Your task to perform on an android device: Open Wikipedia Image 0: 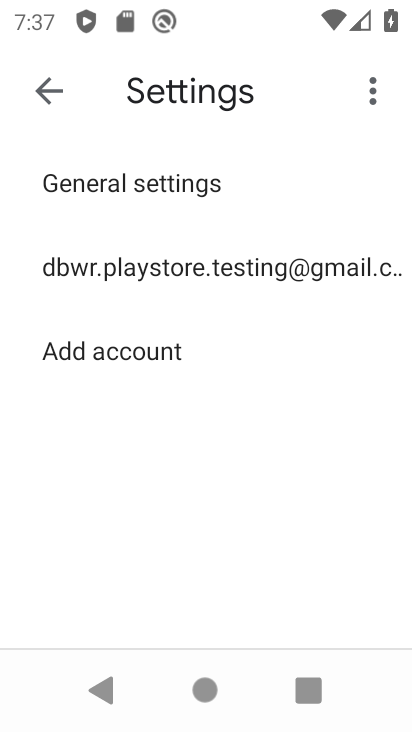
Step 0: press home button
Your task to perform on an android device: Open Wikipedia Image 1: 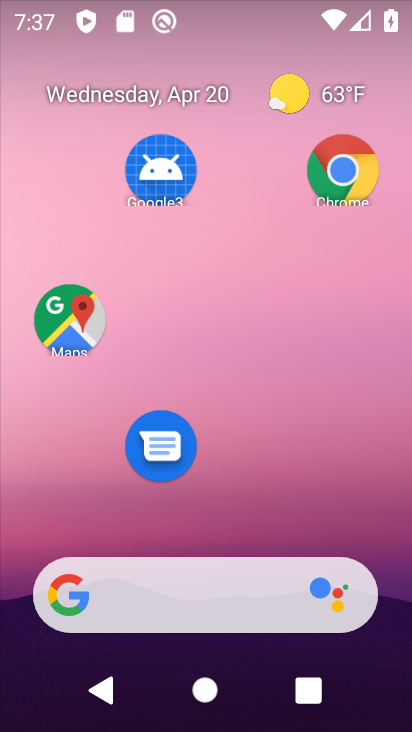
Step 1: click (349, 164)
Your task to perform on an android device: Open Wikipedia Image 2: 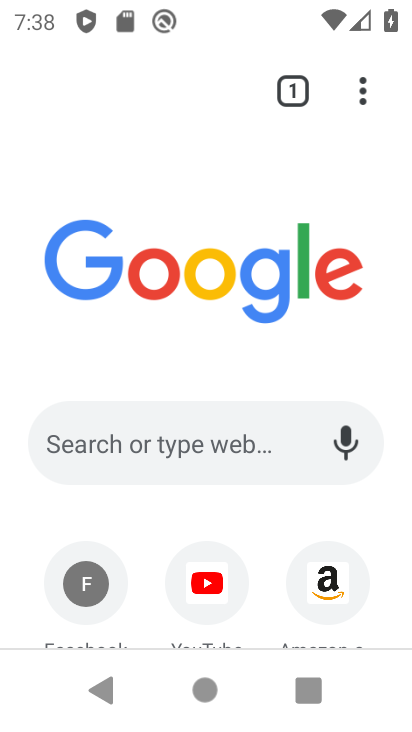
Step 2: drag from (124, 530) to (143, 272)
Your task to perform on an android device: Open Wikipedia Image 3: 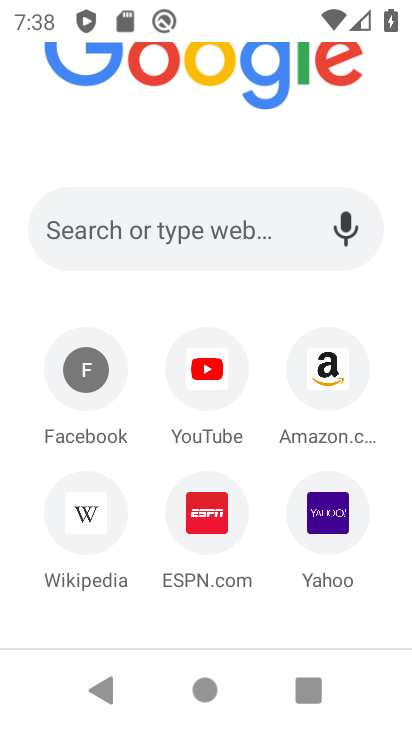
Step 3: click (88, 522)
Your task to perform on an android device: Open Wikipedia Image 4: 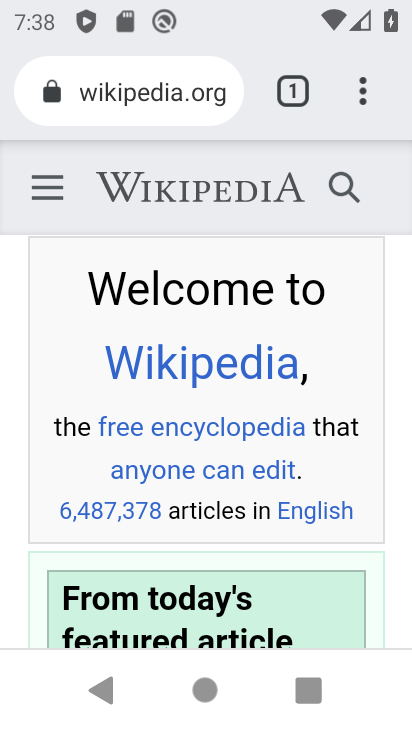
Step 4: task complete